Your task to perform on an android device: star an email in the gmail app Image 0: 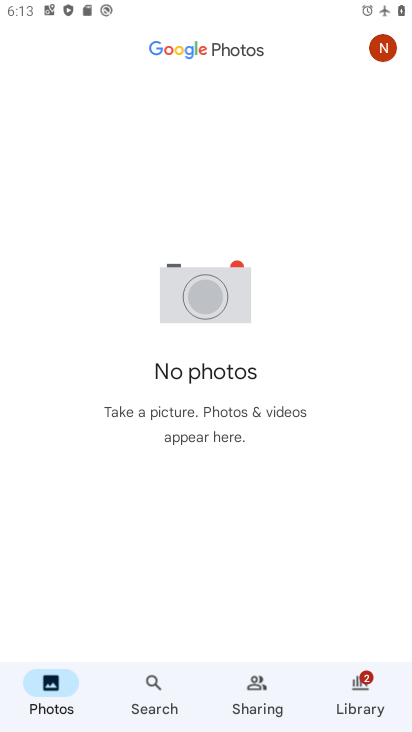
Step 0: press home button
Your task to perform on an android device: star an email in the gmail app Image 1: 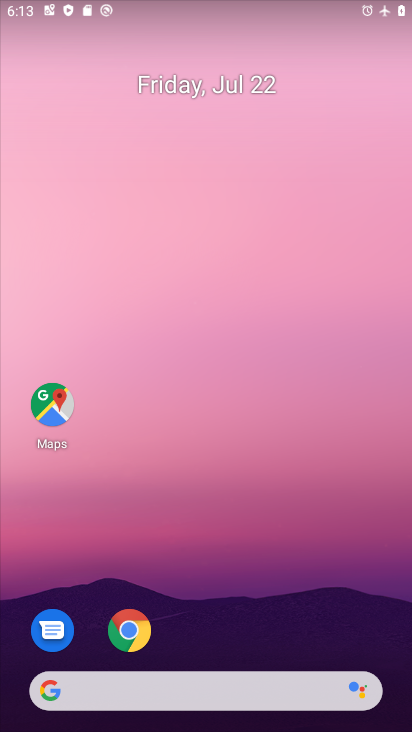
Step 1: drag from (130, 691) to (410, 32)
Your task to perform on an android device: star an email in the gmail app Image 2: 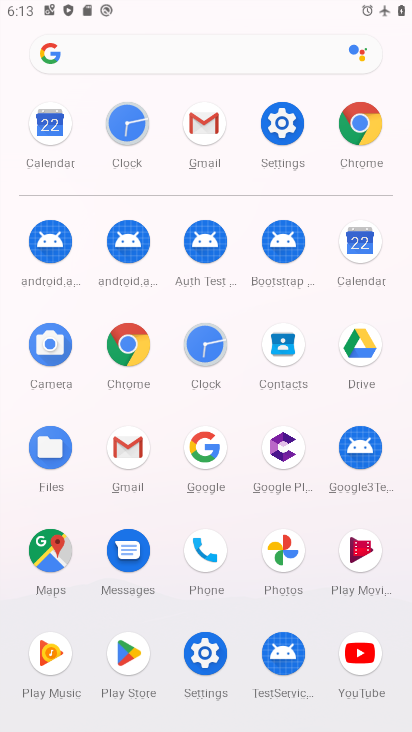
Step 2: click (114, 461)
Your task to perform on an android device: star an email in the gmail app Image 3: 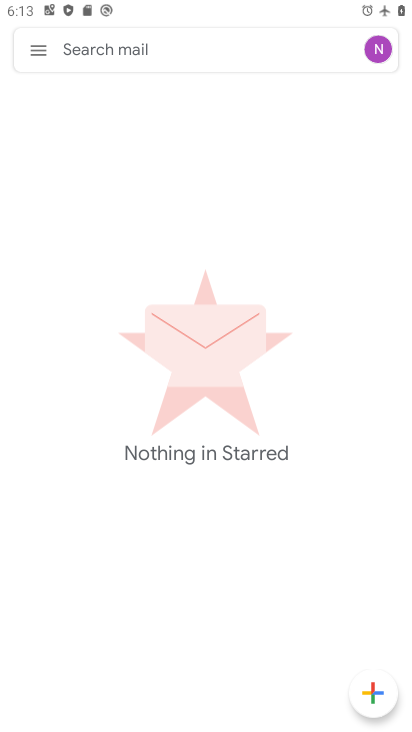
Step 3: task complete